Your task to perform on an android device: Open accessibility settings Image 0: 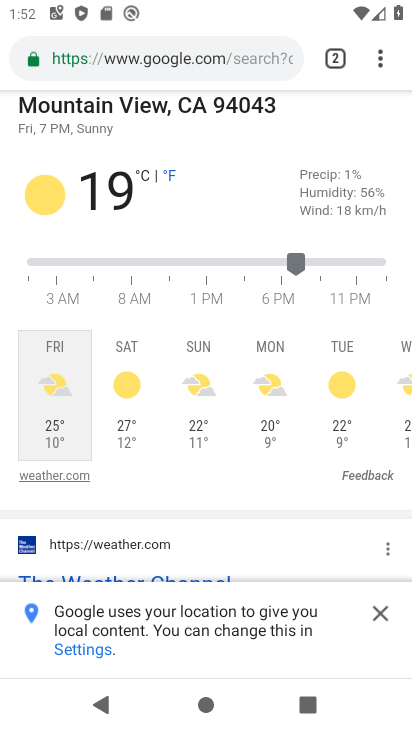
Step 0: press home button
Your task to perform on an android device: Open accessibility settings Image 1: 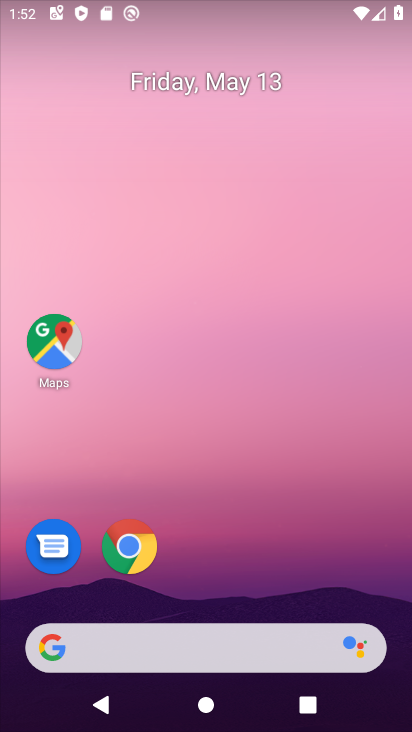
Step 1: drag from (218, 572) to (270, 143)
Your task to perform on an android device: Open accessibility settings Image 2: 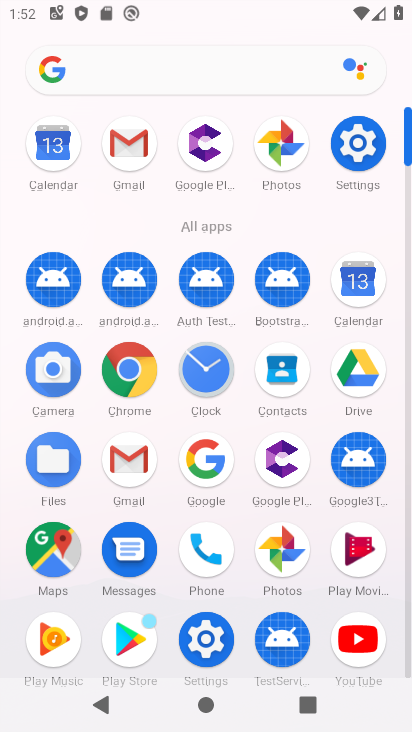
Step 2: click (199, 640)
Your task to perform on an android device: Open accessibility settings Image 3: 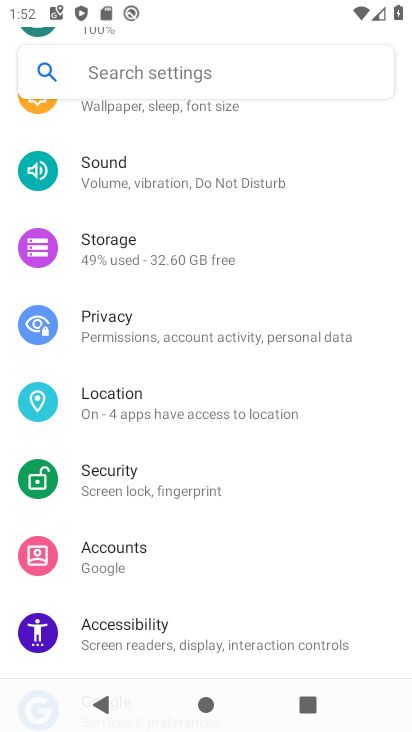
Step 3: click (193, 624)
Your task to perform on an android device: Open accessibility settings Image 4: 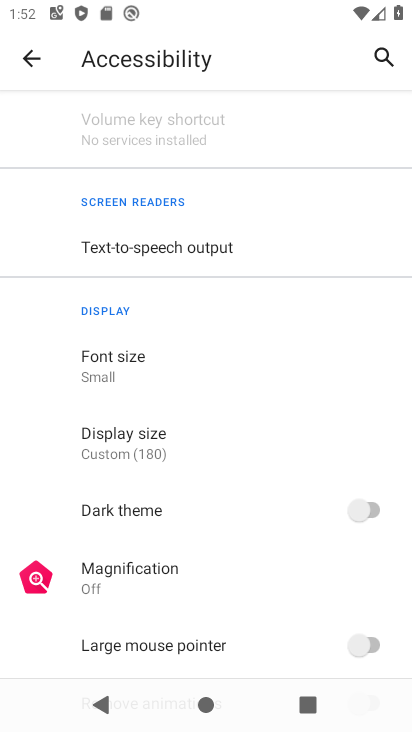
Step 4: task complete